Your task to perform on an android device: When is my next appointment? Image 0: 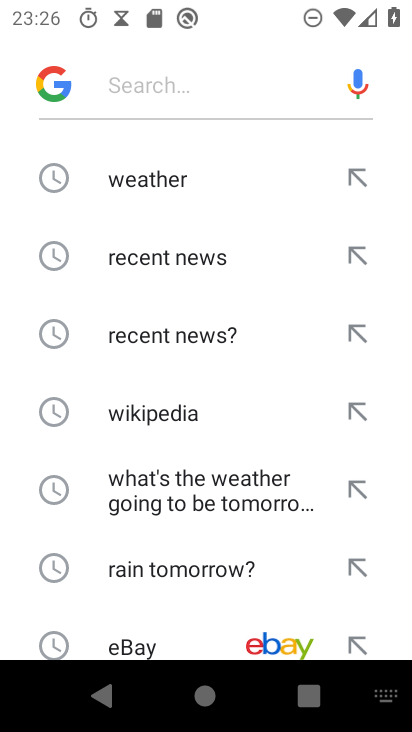
Step 0: press home button
Your task to perform on an android device: When is my next appointment? Image 1: 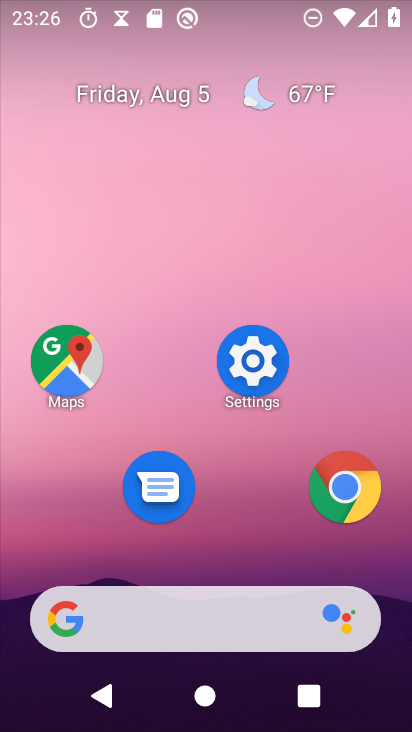
Step 1: drag from (193, 630) to (256, 165)
Your task to perform on an android device: When is my next appointment? Image 2: 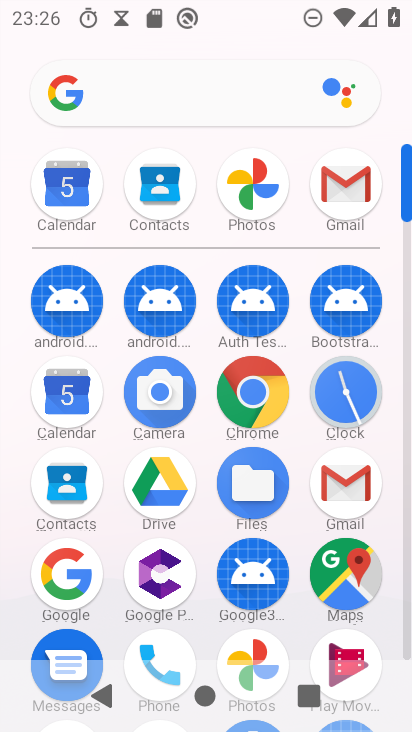
Step 2: click (67, 391)
Your task to perform on an android device: When is my next appointment? Image 3: 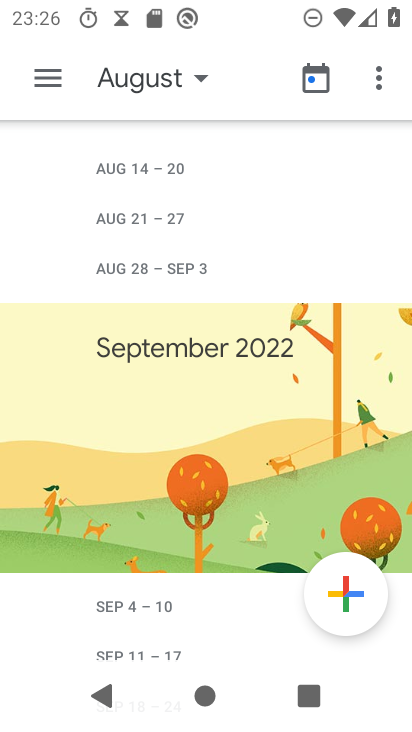
Step 3: task complete